Your task to perform on an android device: open app "Booking.com: Hotels and more" (install if not already installed) Image 0: 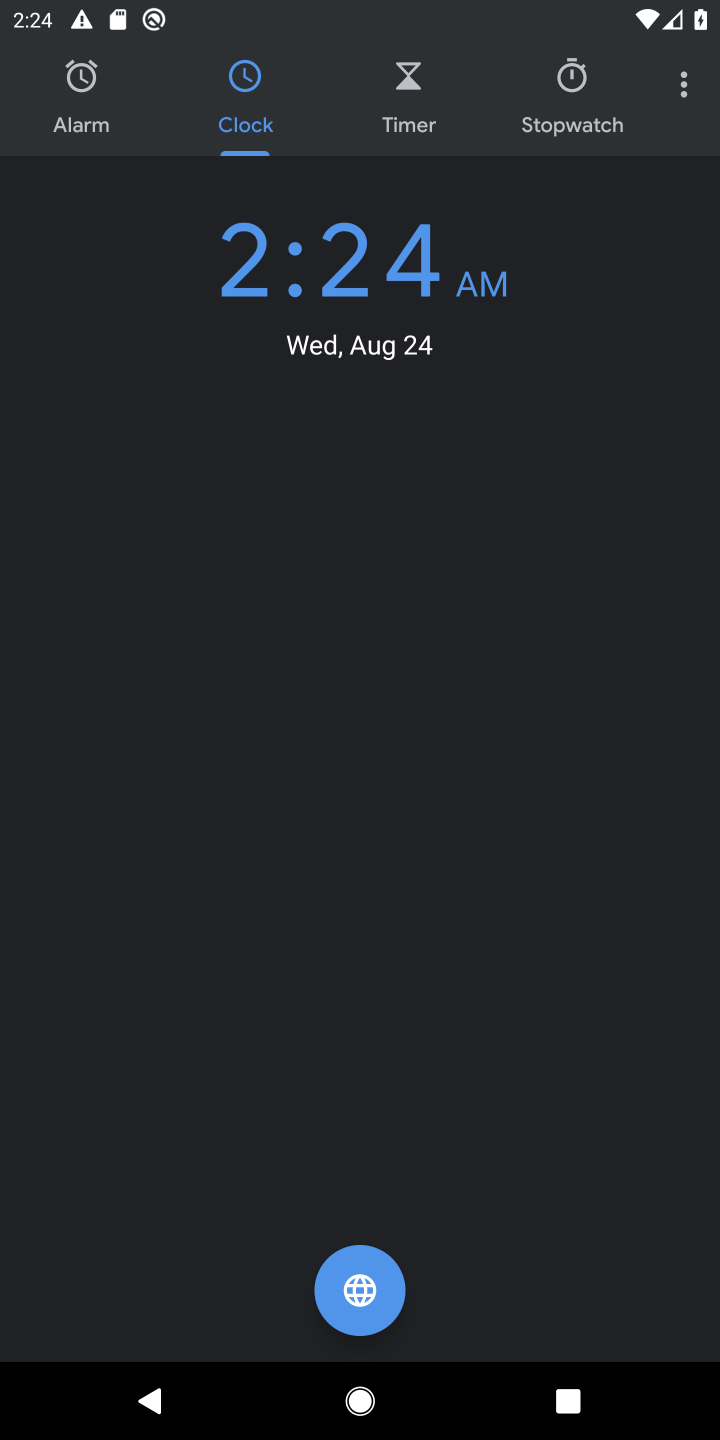
Step 0: press home button
Your task to perform on an android device: open app "Booking.com: Hotels and more" (install if not already installed) Image 1: 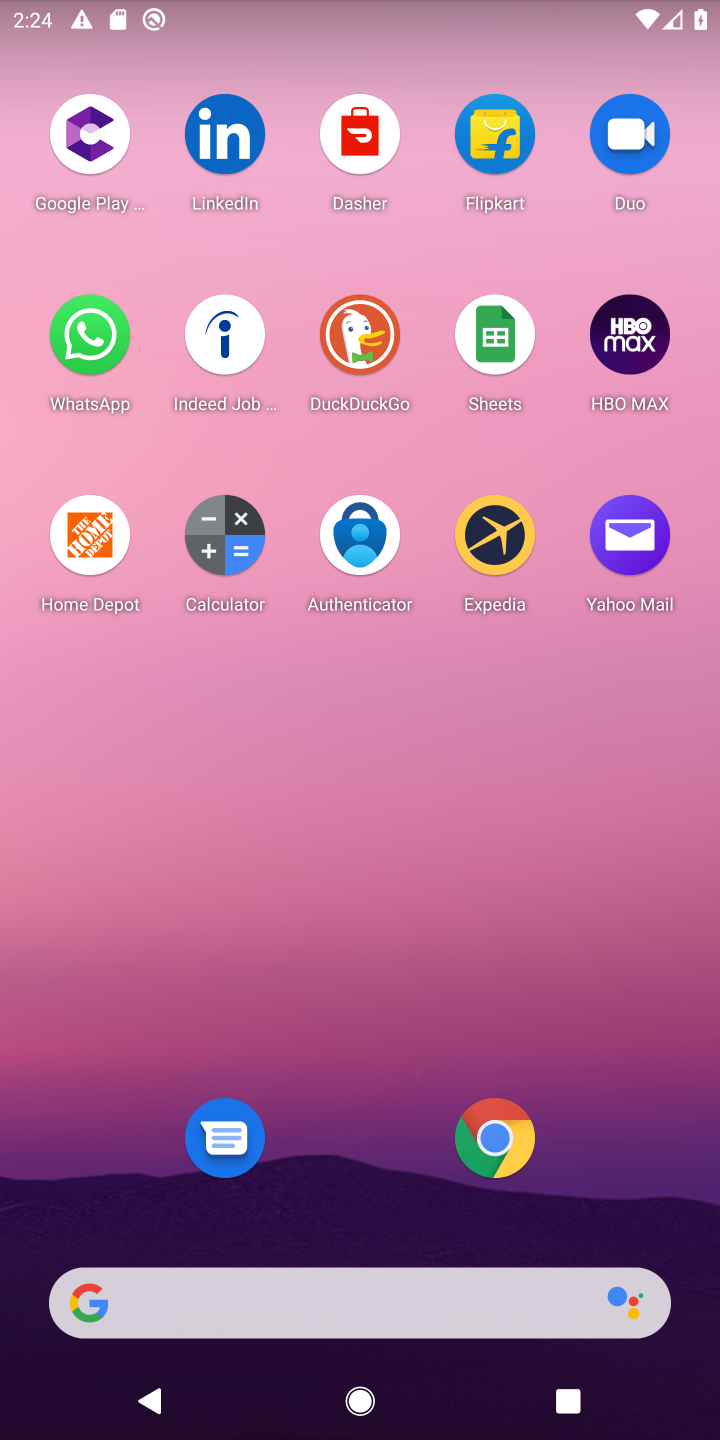
Step 1: drag from (361, 592) to (363, 161)
Your task to perform on an android device: open app "Booking.com: Hotels and more" (install if not already installed) Image 2: 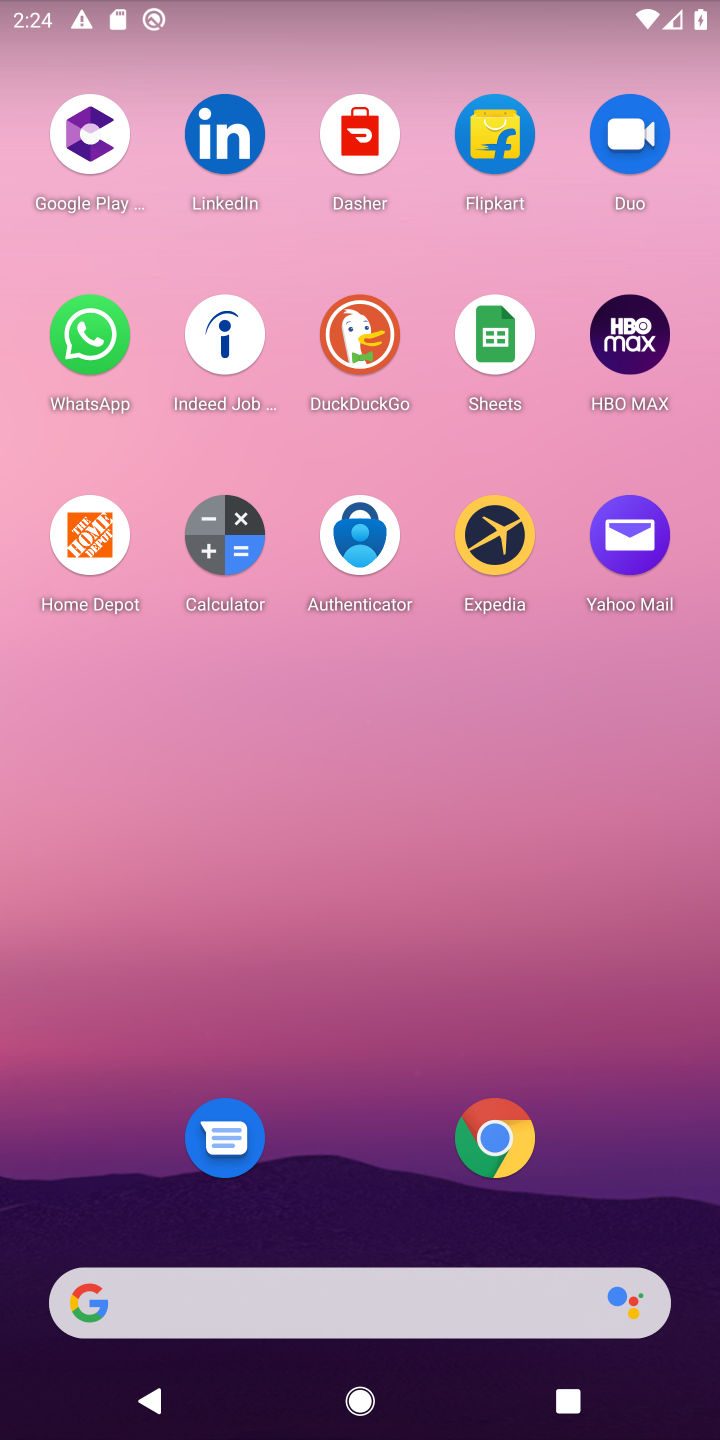
Step 2: drag from (337, 1252) to (337, 184)
Your task to perform on an android device: open app "Booking.com: Hotels and more" (install if not already installed) Image 3: 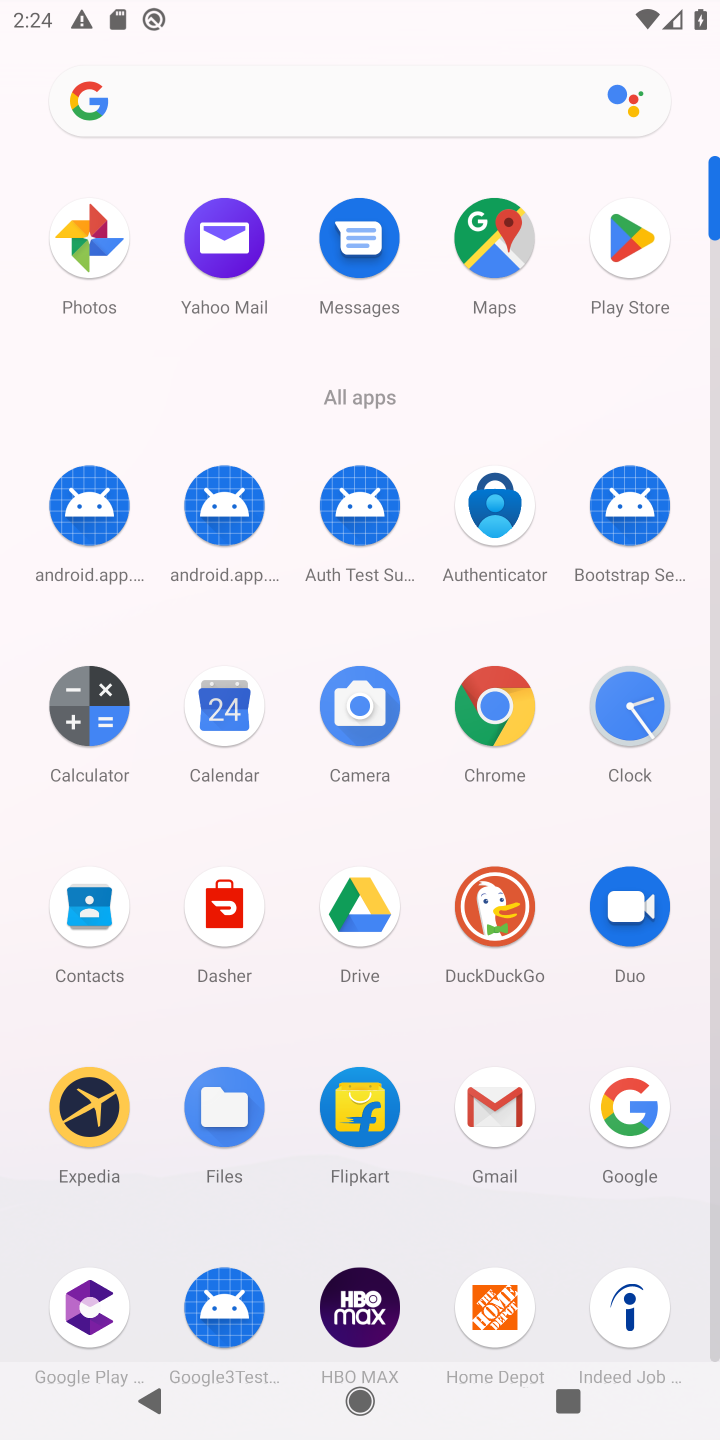
Step 3: click (620, 215)
Your task to perform on an android device: open app "Booking.com: Hotels and more" (install if not already installed) Image 4: 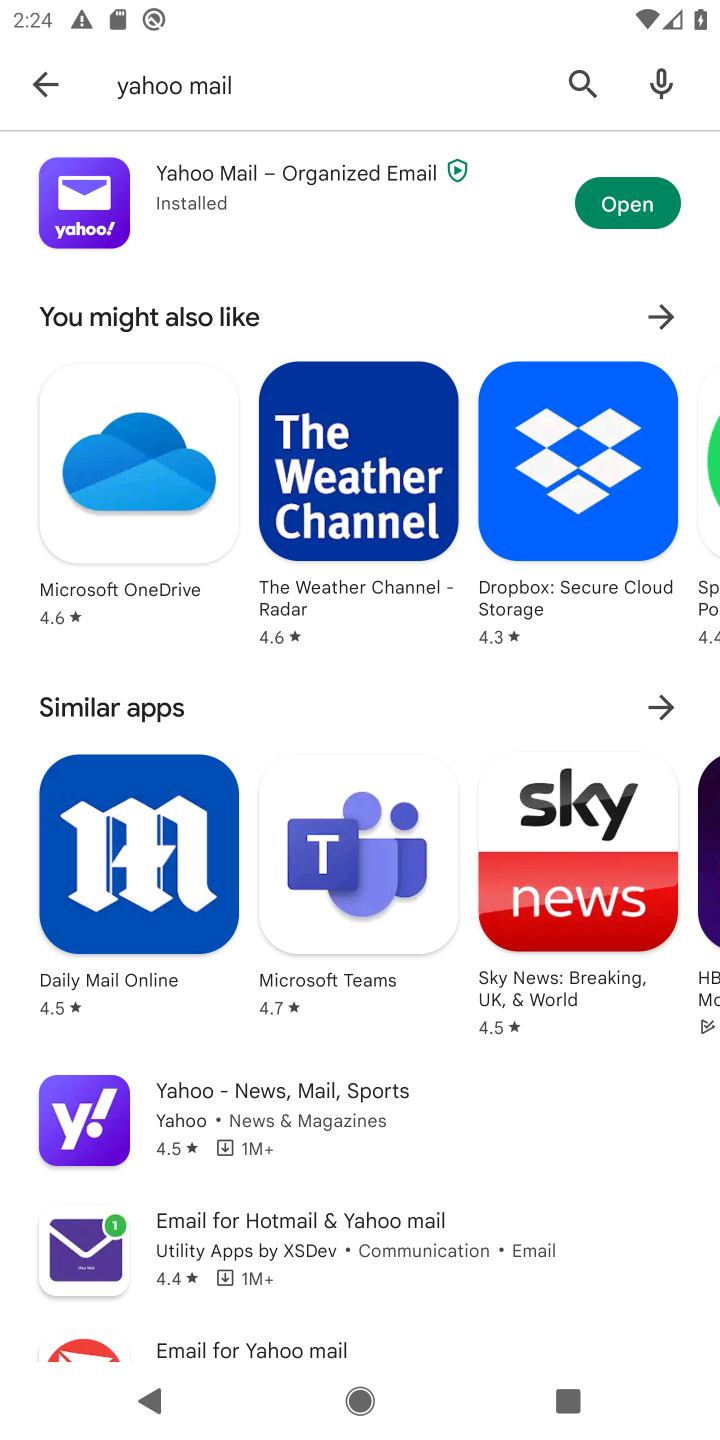
Step 4: click (582, 82)
Your task to perform on an android device: open app "Booking.com: Hotels and more" (install if not already installed) Image 5: 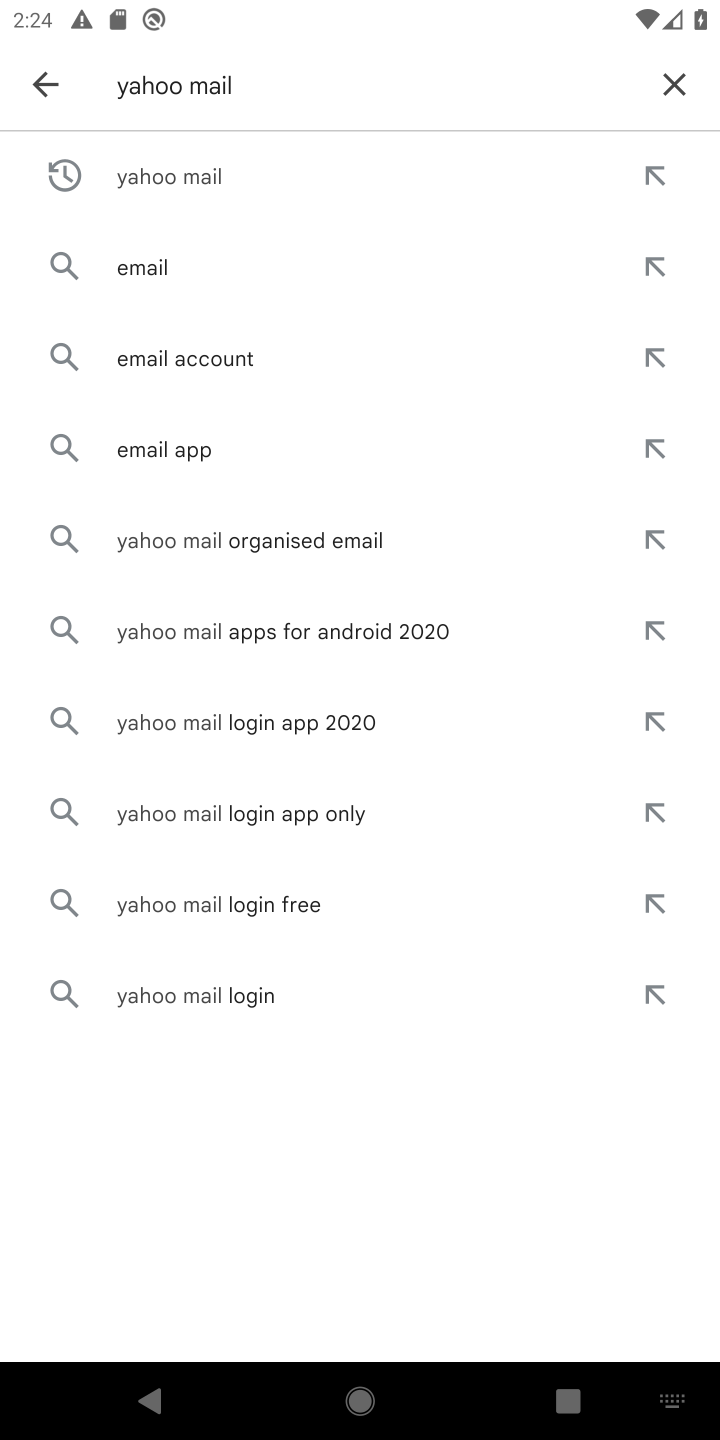
Step 5: click (678, 82)
Your task to perform on an android device: open app "Booking.com: Hotels and more" (install if not already installed) Image 6: 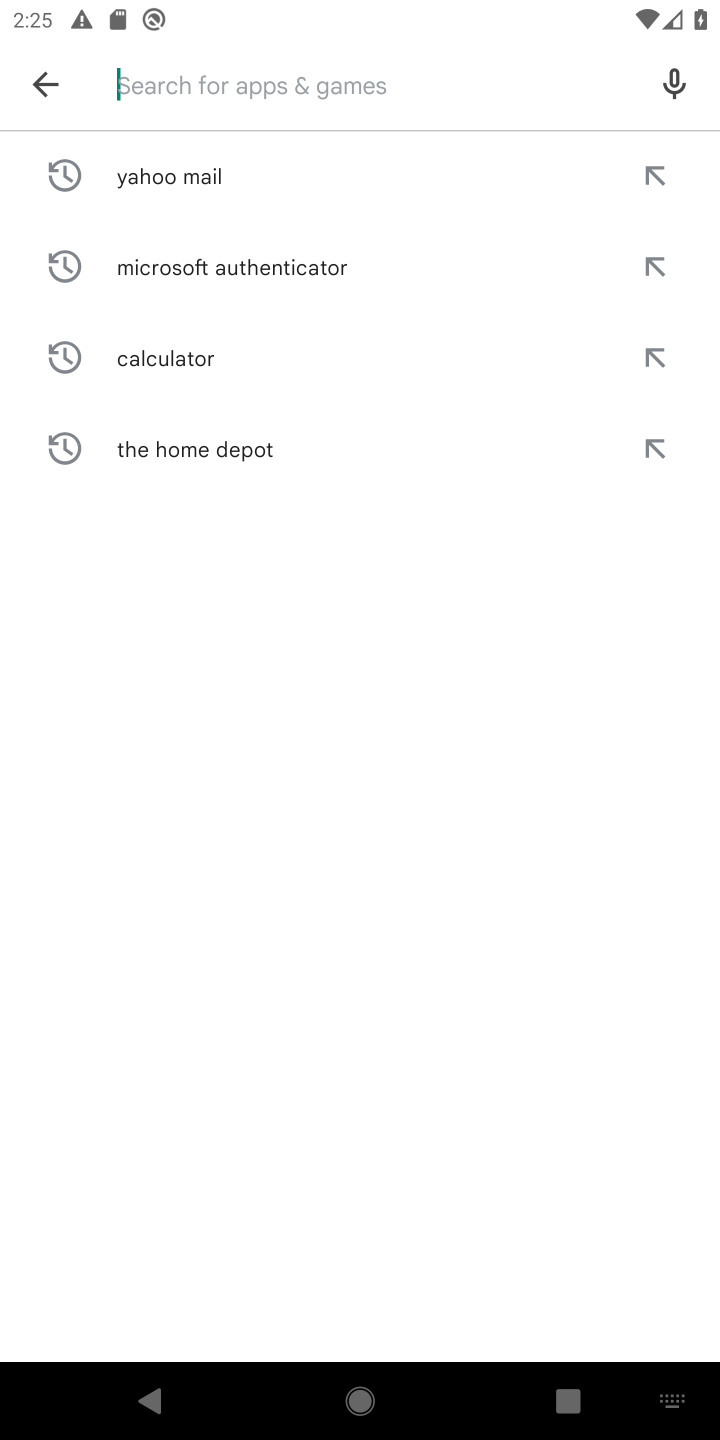
Step 6: type "Booking.com: Hotels and more"
Your task to perform on an android device: open app "Booking.com: Hotels and more" (install if not already installed) Image 7: 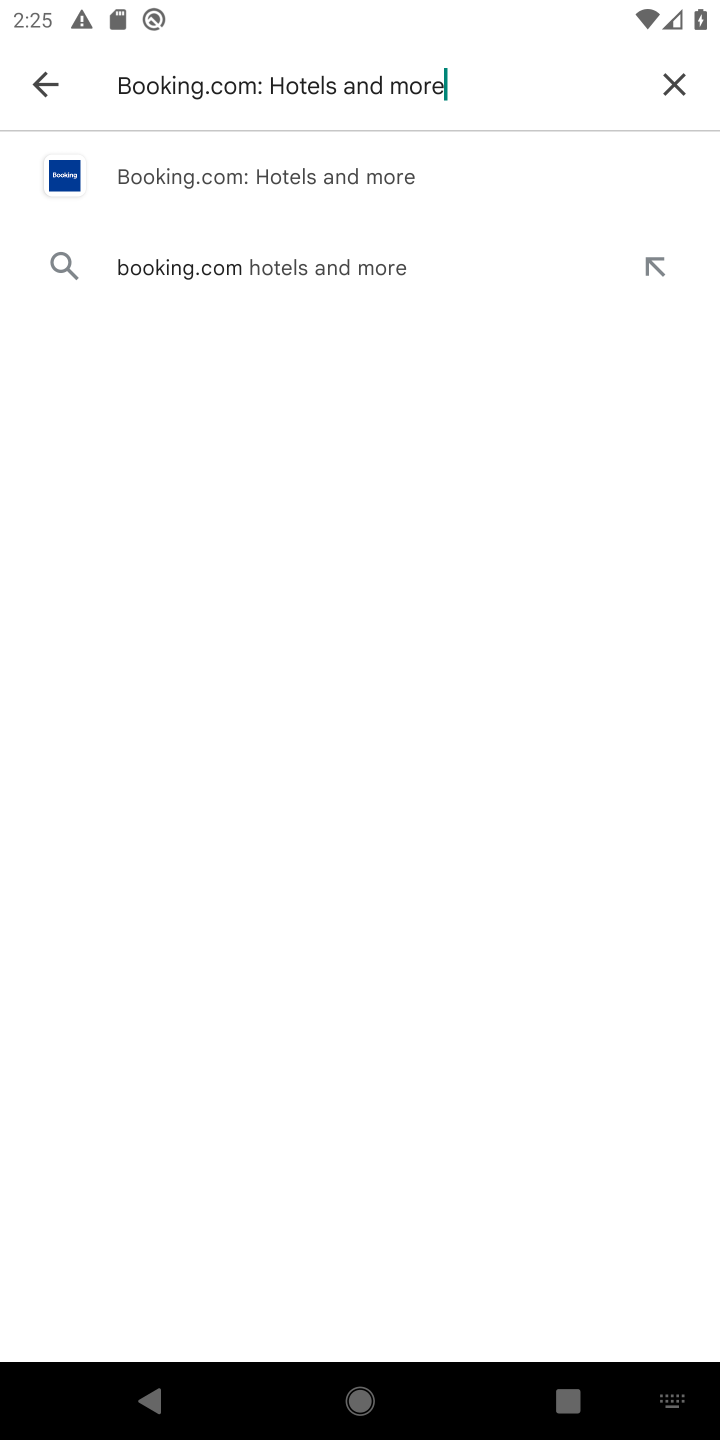
Step 7: click (141, 180)
Your task to perform on an android device: open app "Booking.com: Hotels and more" (install if not already installed) Image 8: 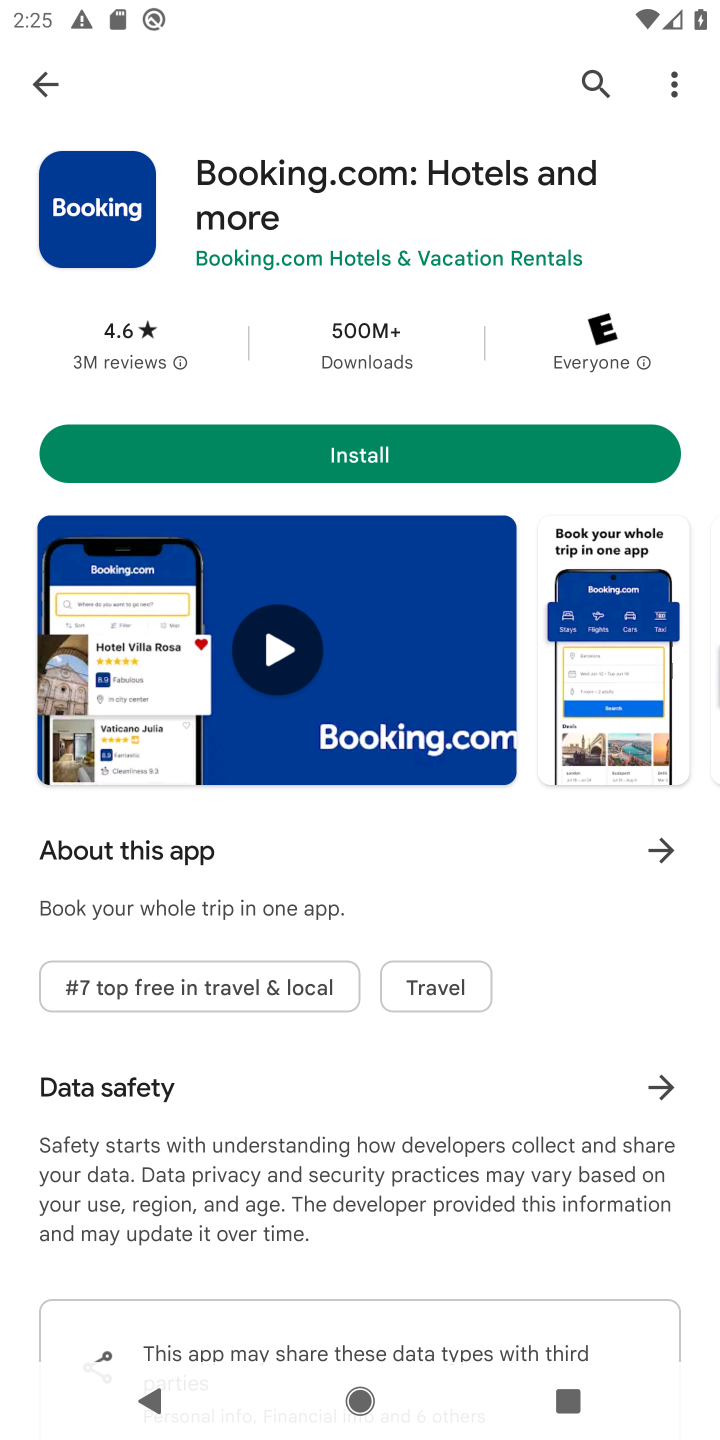
Step 8: click (375, 456)
Your task to perform on an android device: open app "Booking.com: Hotels and more" (install if not already installed) Image 9: 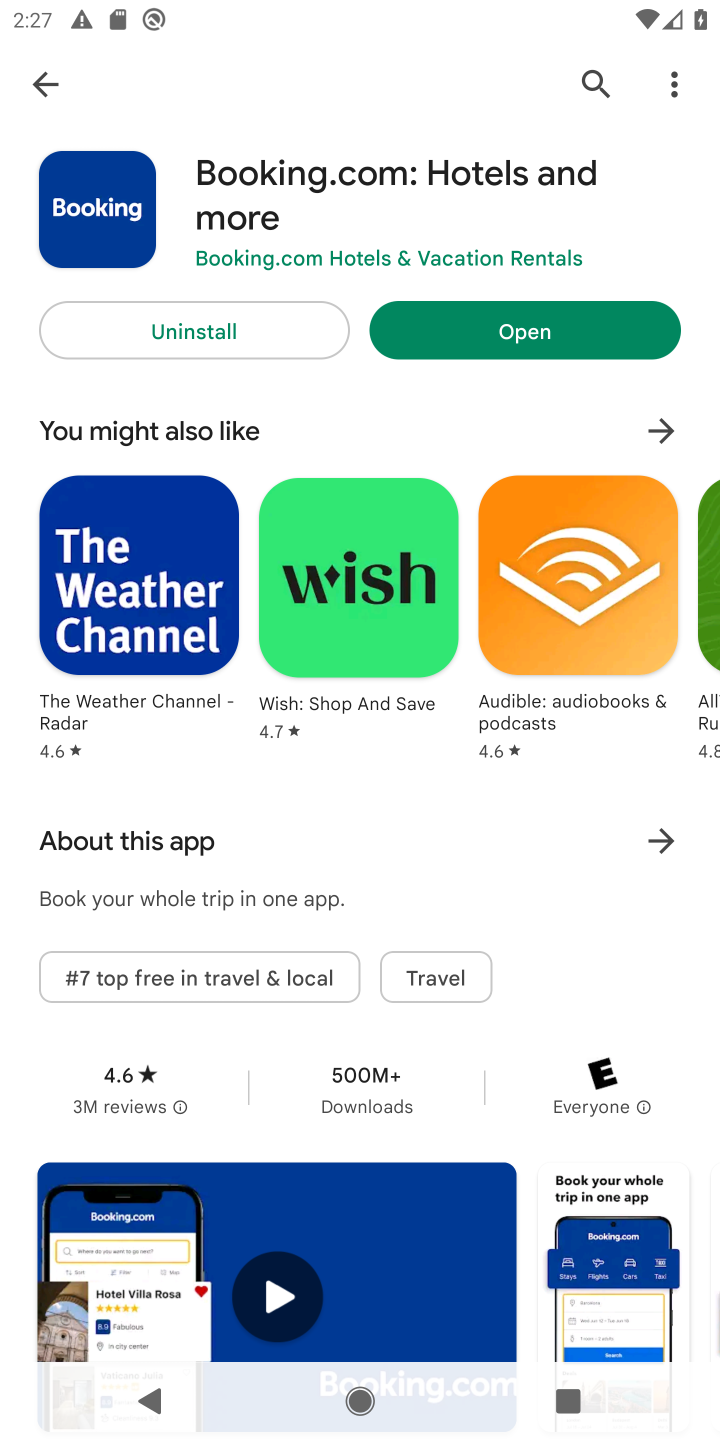
Step 9: click (568, 338)
Your task to perform on an android device: open app "Booking.com: Hotels and more" (install if not already installed) Image 10: 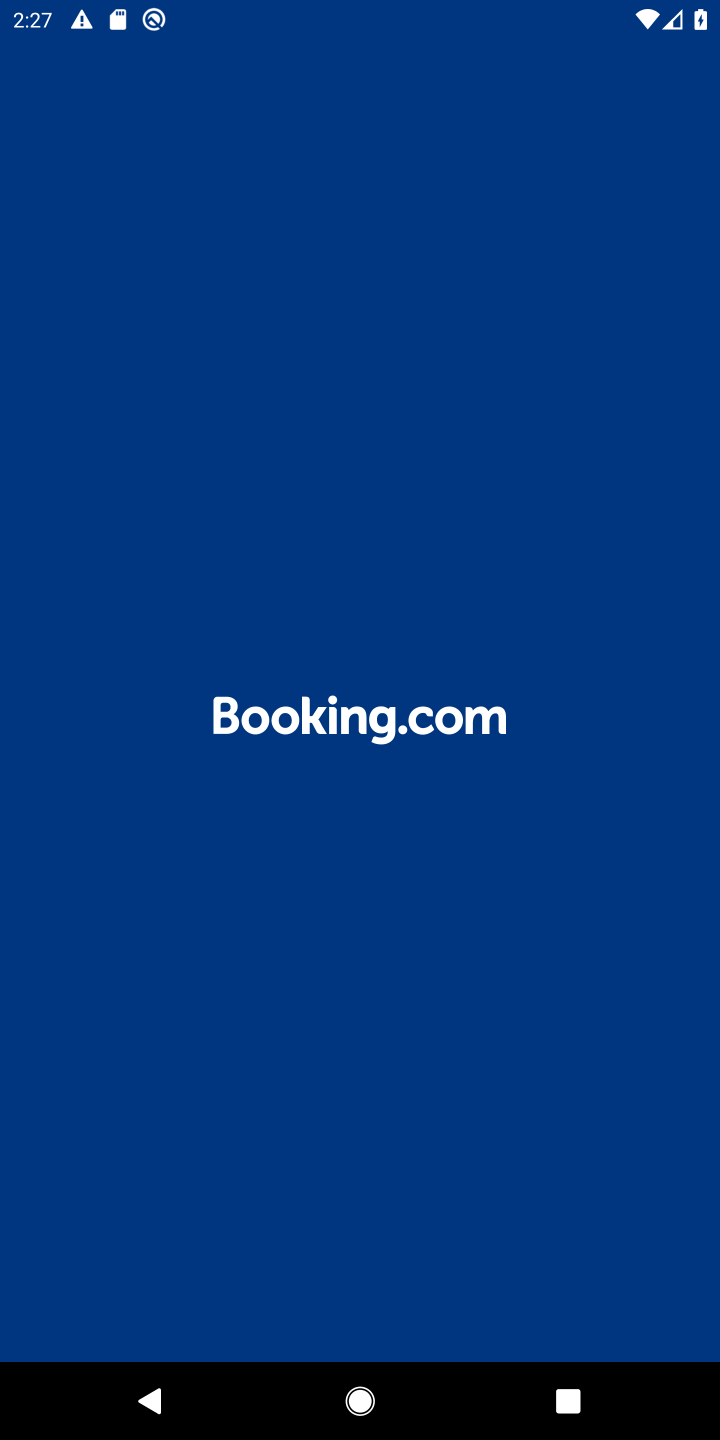
Step 10: task complete